Your task to perform on an android device: Open network settings Image 0: 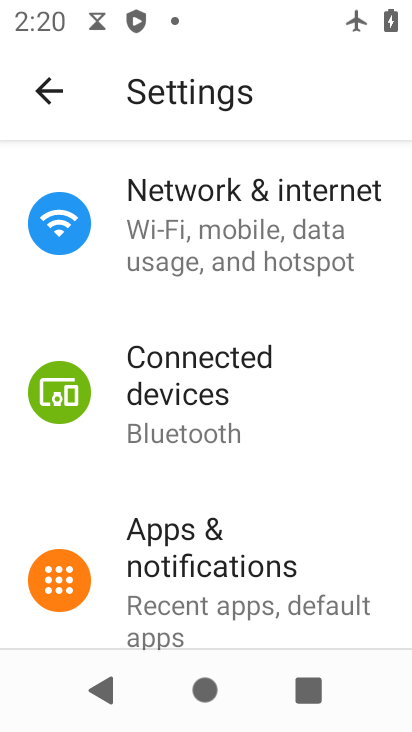
Step 0: click (292, 239)
Your task to perform on an android device: Open network settings Image 1: 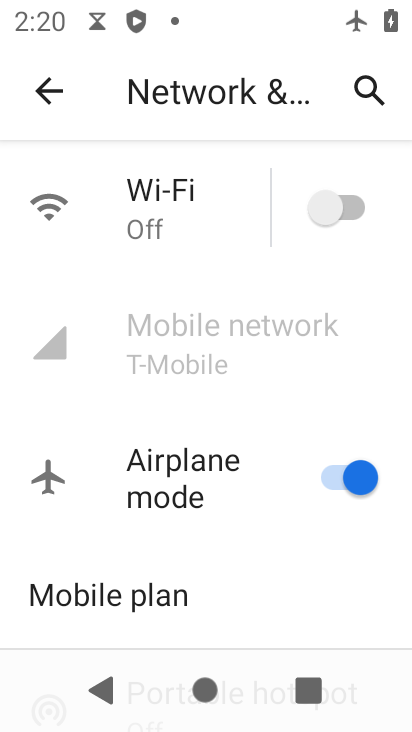
Step 1: task complete